Your task to perform on an android device: Show me popular videos on Youtube Image 0: 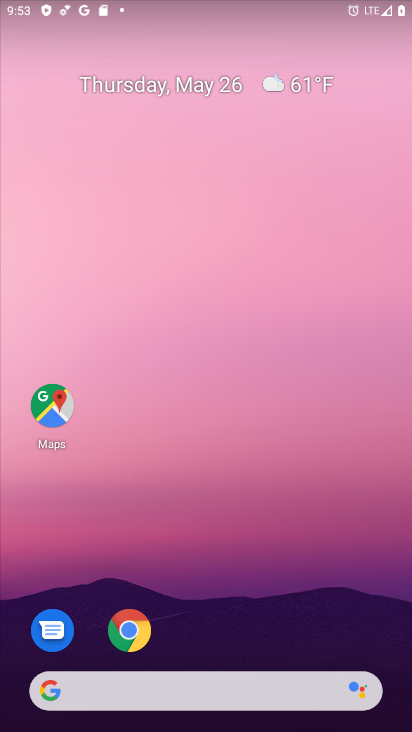
Step 0: drag from (191, 641) to (213, 109)
Your task to perform on an android device: Show me popular videos on Youtube Image 1: 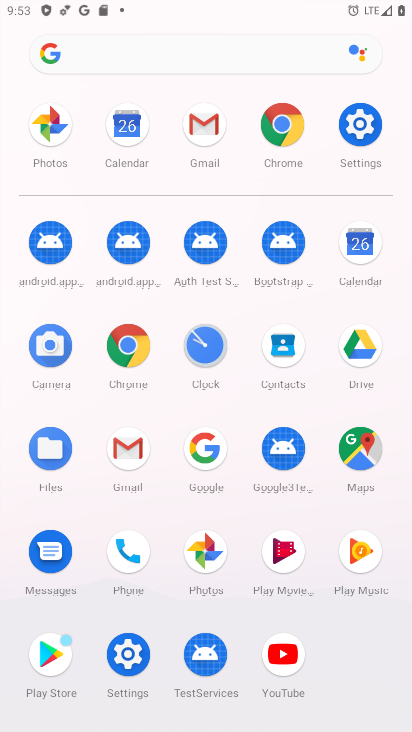
Step 1: click (293, 651)
Your task to perform on an android device: Show me popular videos on Youtube Image 2: 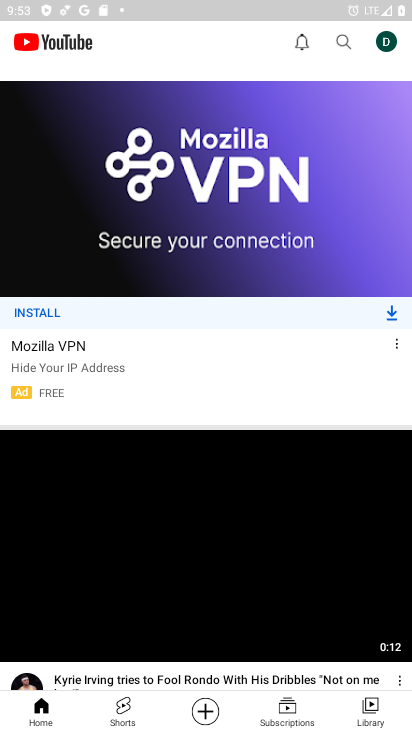
Step 2: click (361, 697)
Your task to perform on an android device: Show me popular videos on Youtube Image 3: 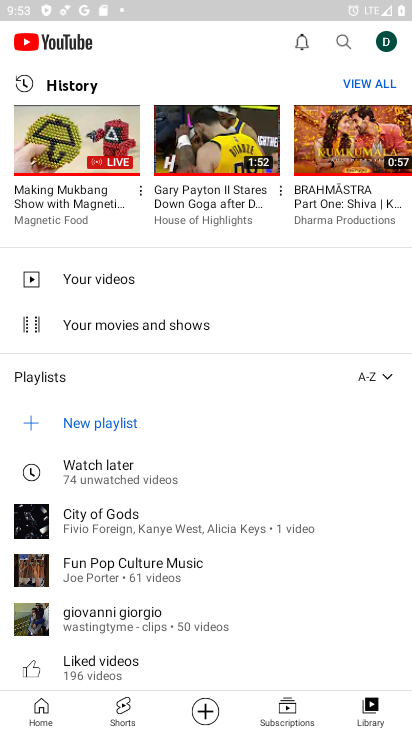
Step 3: task complete